Your task to perform on an android device: show emergency info Image 0: 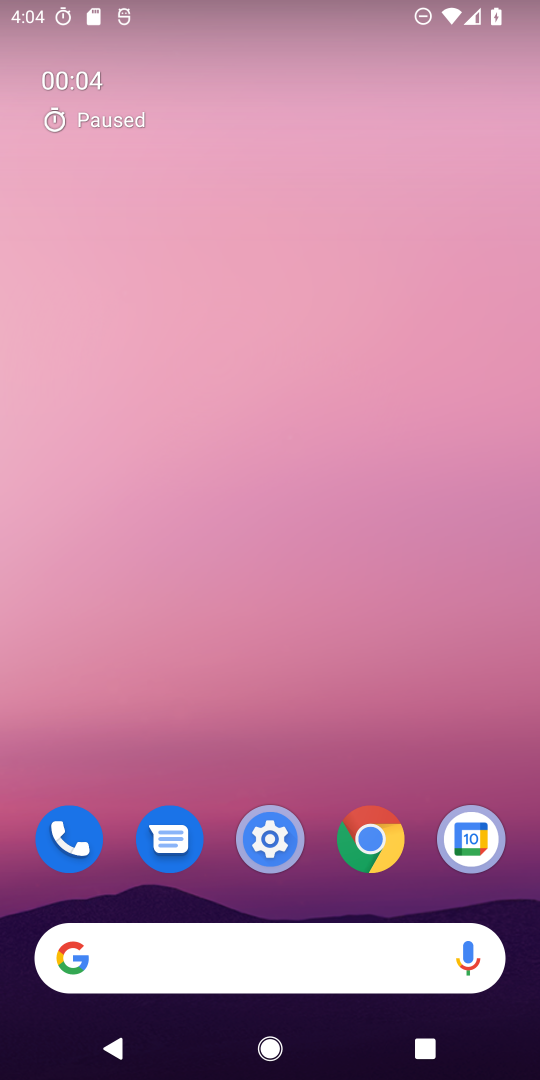
Step 0: click (268, 835)
Your task to perform on an android device: show emergency info Image 1: 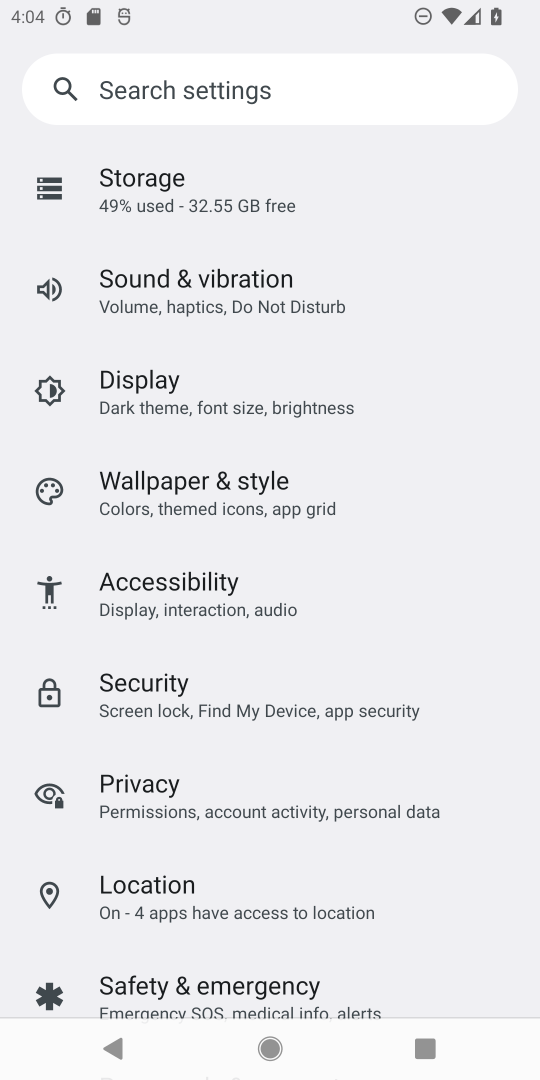
Step 1: drag from (482, 853) to (448, 603)
Your task to perform on an android device: show emergency info Image 2: 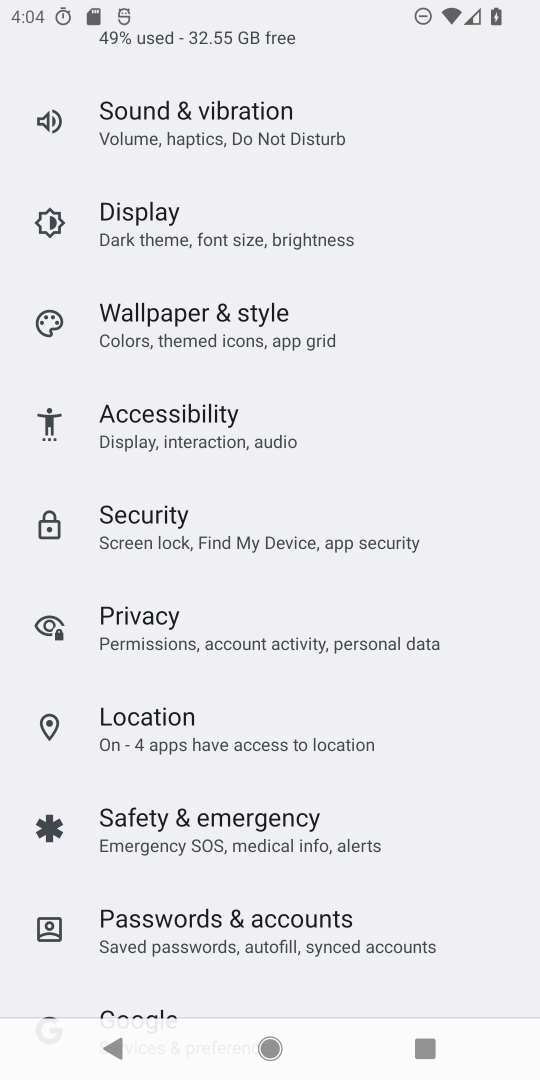
Step 2: click (157, 819)
Your task to perform on an android device: show emergency info Image 3: 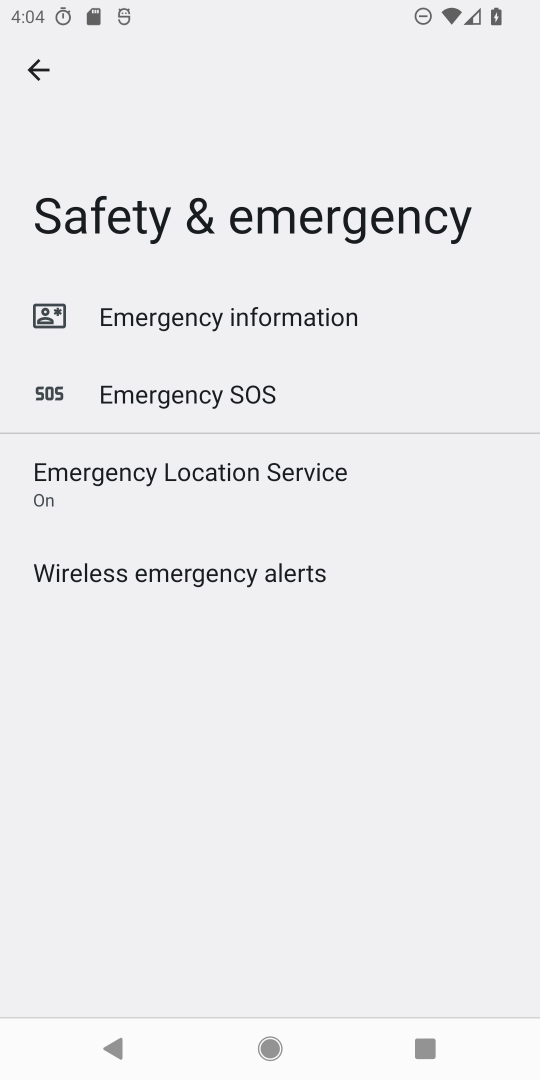
Step 3: task complete